Your task to perform on an android device: clear all cookies in the chrome app Image 0: 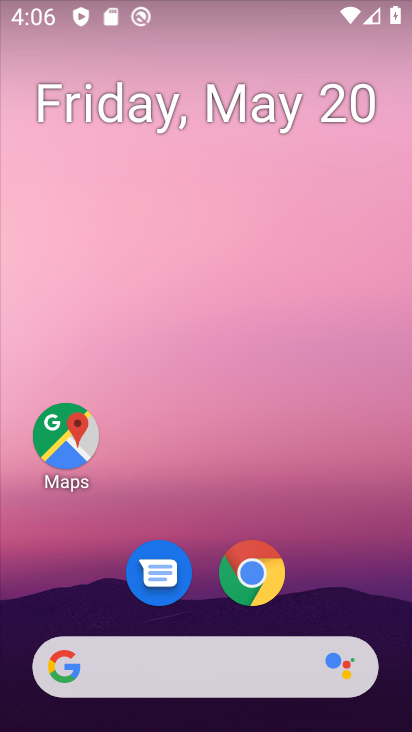
Step 0: drag from (366, 585) to (246, 210)
Your task to perform on an android device: clear all cookies in the chrome app Image 1: 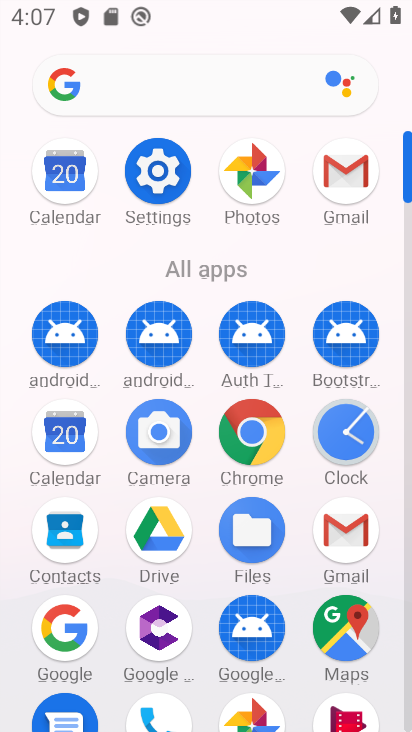
Step 1: click (263, 445)
Your task to perform on an android device: clear all cookies in the chrome app Image 2: 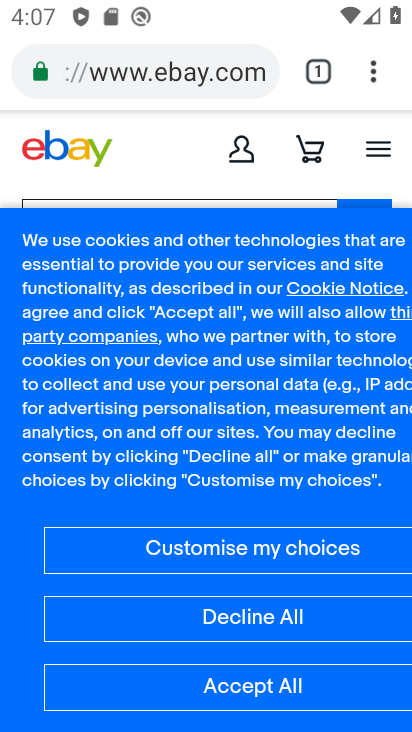
Step 2: click (379, 92)
Your task to perform on an android device: clear all cookies in the chrome app Image 3: 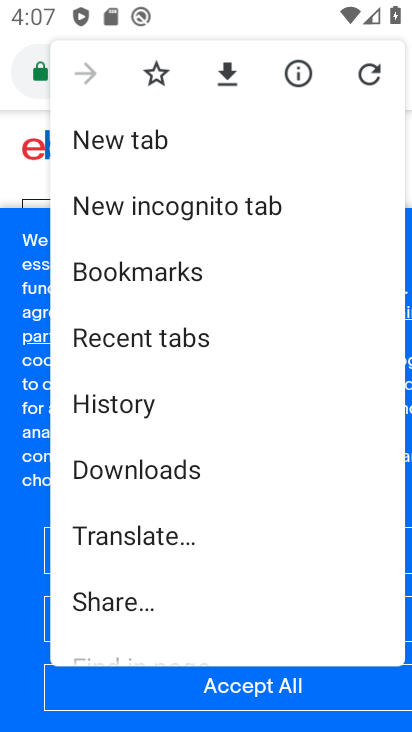
Step 3: click (290, 410)
Your task to perform on an android device: clear all cookies in the chrome app Image 4: 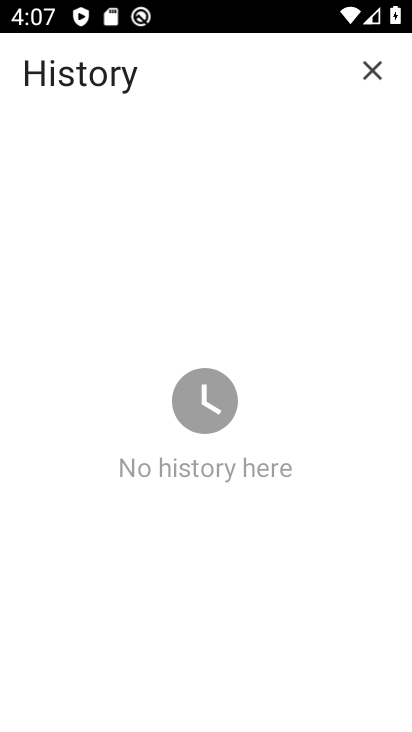
Step 4: task complete